Your task to perform on an android device: add a contact in the contacts app Image 0: 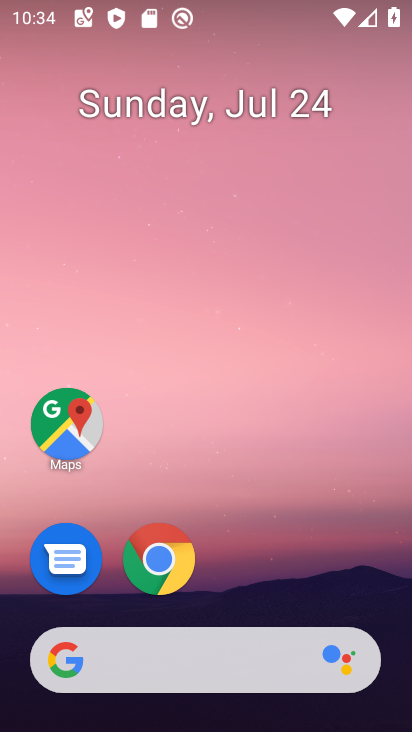
Step 0: drag from (312, 575) to (299, 4)
Your task to perform on an android device: add a contact in the contacts app Image 1: 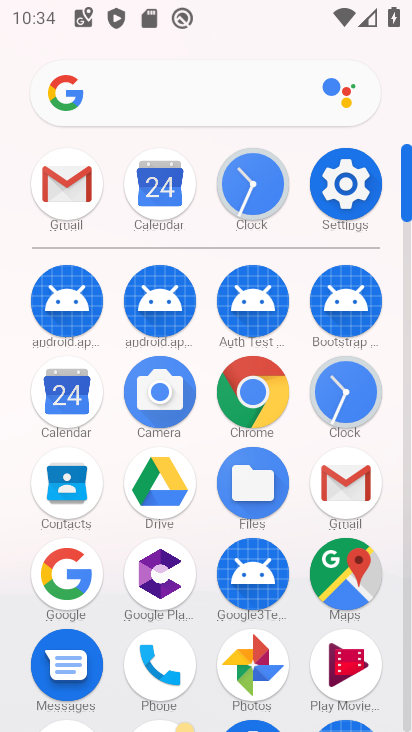
Step 1: click (76, 501)
Your task to perform on an android device: add a contact in the contacts app Image 2: 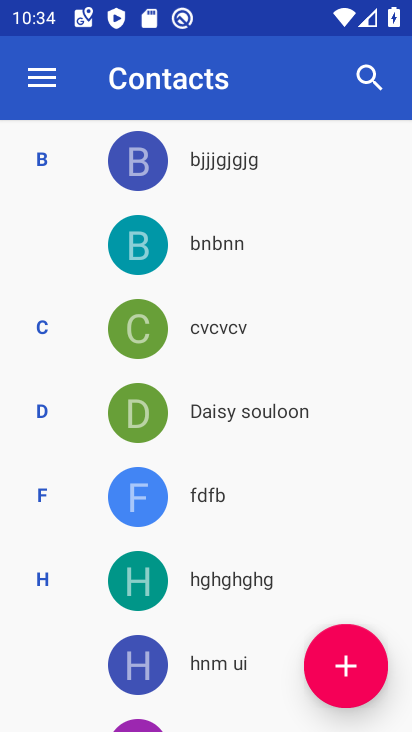
Step 2: click (356, 670)
Your task to perform on an android device: add a contact in the contacts app Image 3: 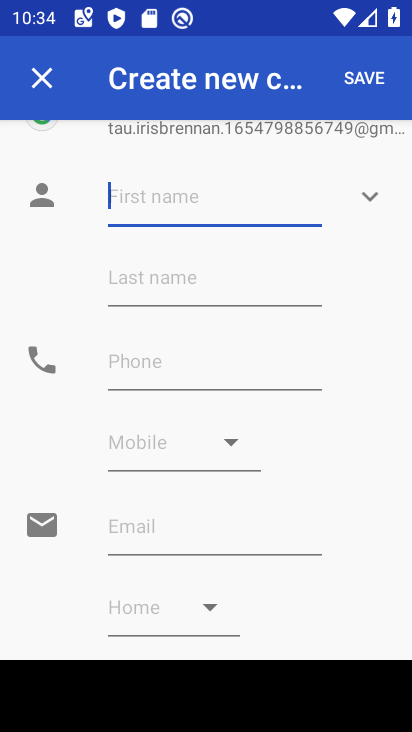
Step 3: click (143, 198)
Your task to perform on an android device: add a contact in the contacts app Image 4: 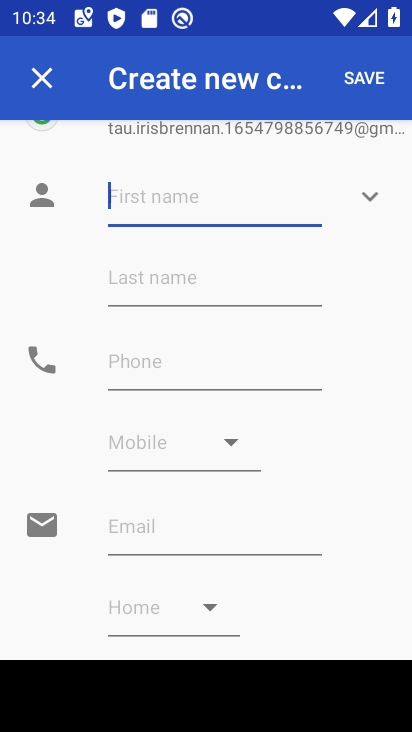
Step 4: type "gfggf"
Your task to perform on an android device: add a contact in the contacts app Image 5: 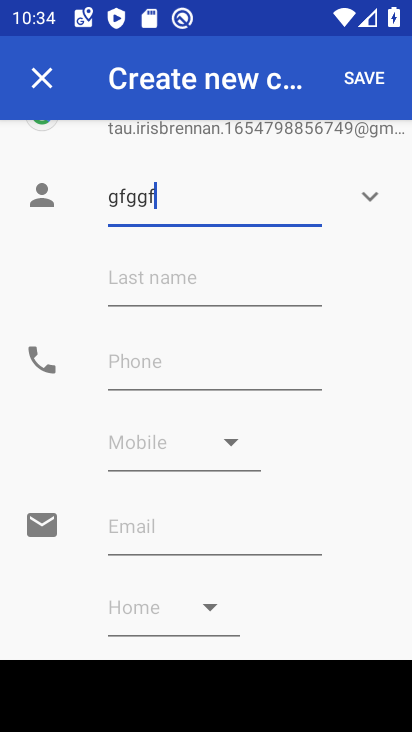
Step 5: click (140, 356)
Your task to perform on an android device: add a contact in the contacts app Image 6: 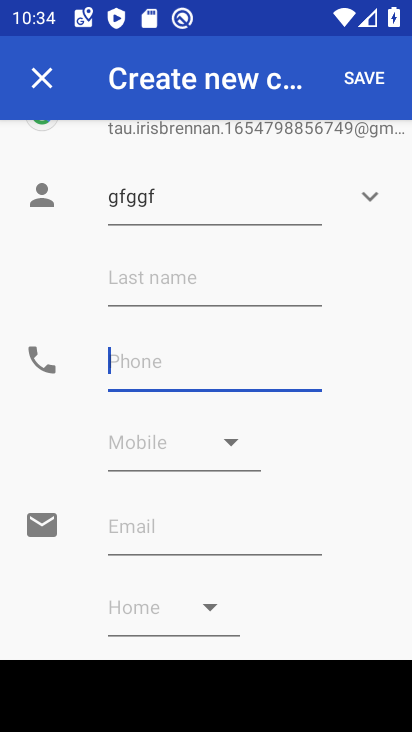
Step 6: type "56676"
Your task to perform on an android device: add a contact in the contacts app Image 7: 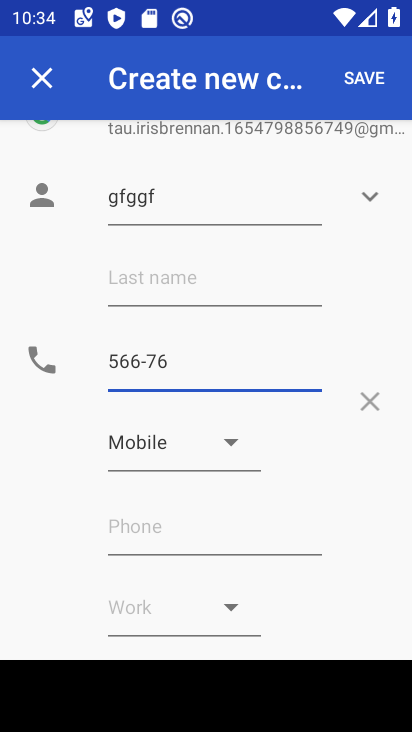
Step 7: click (363, 71)
Your task to perform on an android device: add a contact in the contacts app Image 8: 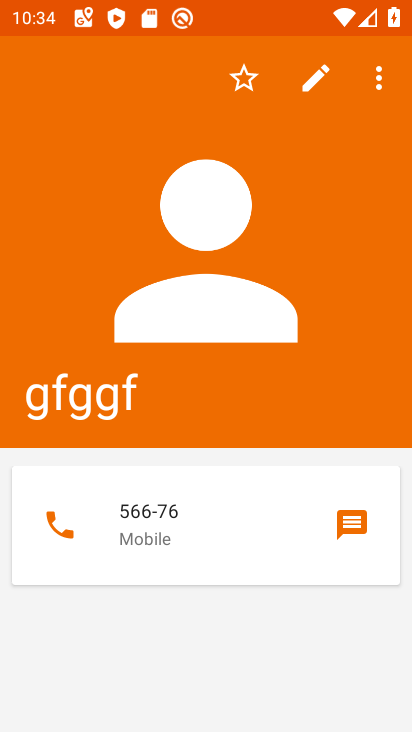
Step 8: task complete